Your task to perform on an android device: search for starred emails in the gmail app Image 0: 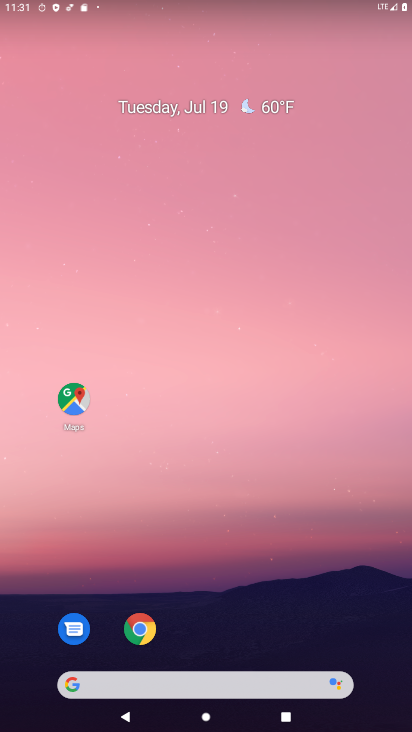
Step 0: drag from (315, 607) to (267, 70)
Your task to perform on an android device: search for starred emails in the gmail app Image 1: 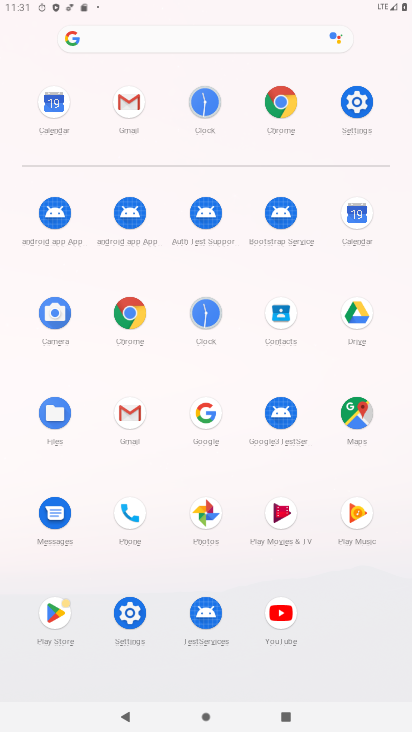
Step 1: click (123, 104)
Your task to perform on an android device: search for starred emails in the gmail app Image 2: 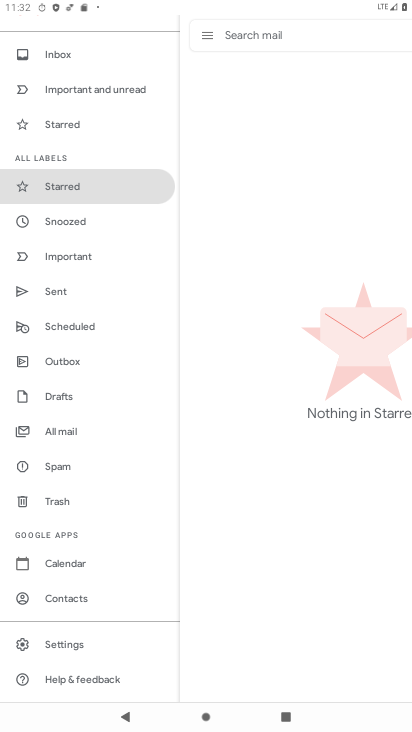
Step 2: task complete